Your task to perform on an android device: Open the map Image 0: 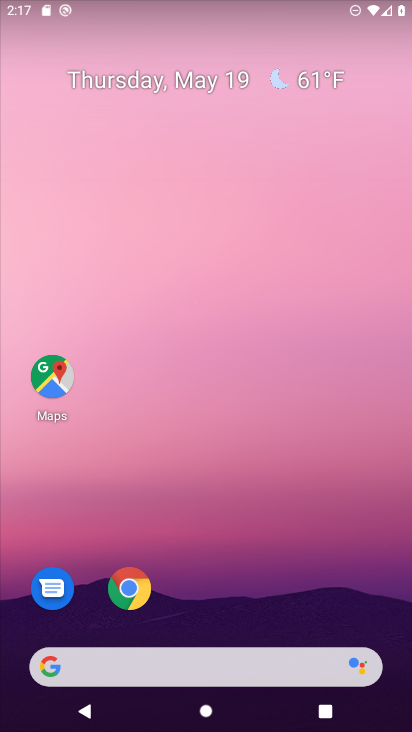
Step 0: click (47, 372)
Your task to perform on an android device: Open the map Image 1: 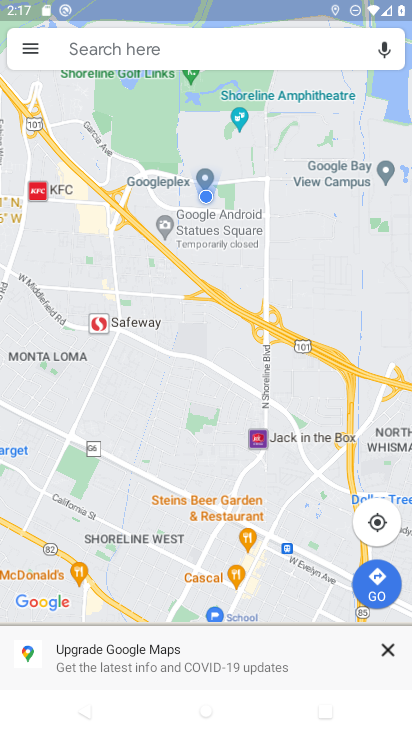
Step 1: task complete